Your task to perform on an android device: Go to eBay Image 0: 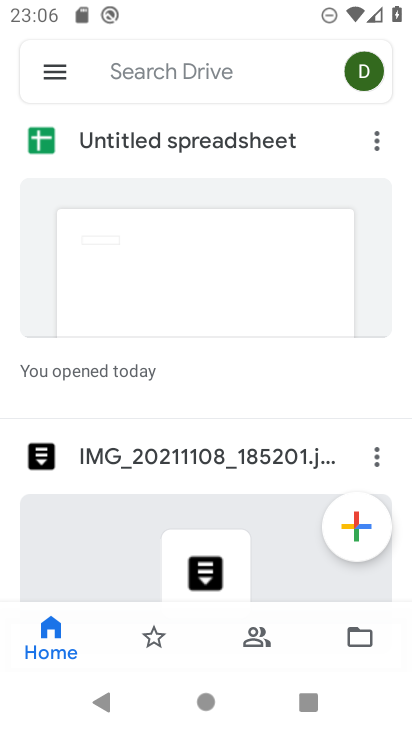
Step 0: press home button
Your task to perform on an android device: Go to eBay Image 1: 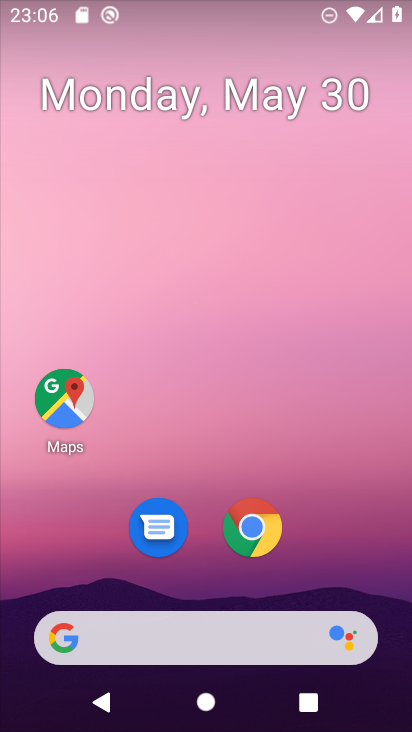
Step 1: click (264, 518)
Your task to perform on an android device: Go to eBay Image 2: 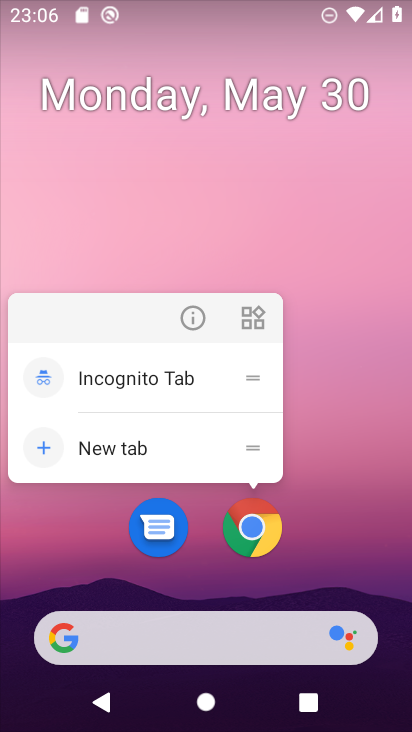
Step 2: click (258, 528)
Your task to perform on an android device: Go to eBay Image 3: 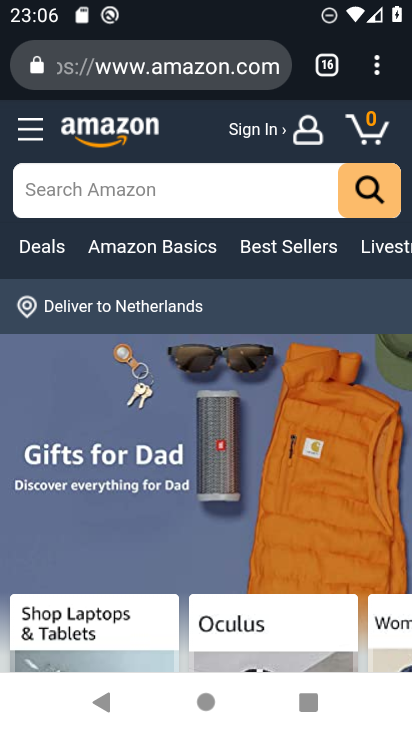
Step 3: click (372, 57)
Your task to perform on an android device: Go to eBay Image 4: 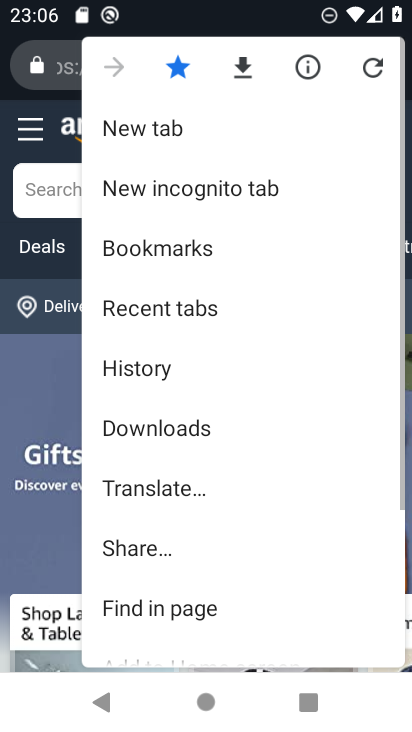
Step 4: click (201, 131)
Your task to perform on an android device: Go to eBay Image 5: 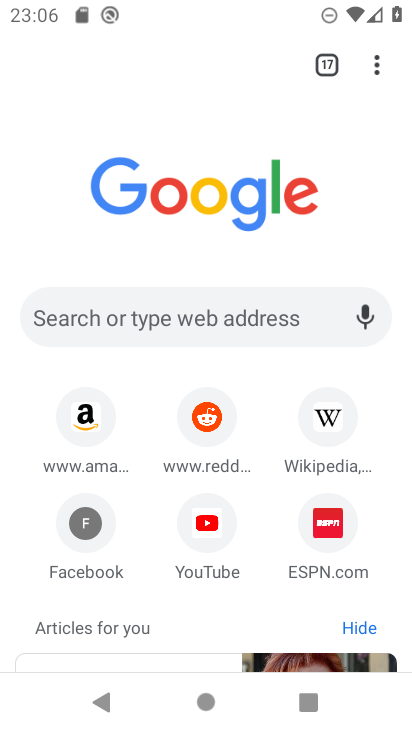
Step 5: click (108, 309)
Your task to perform on an android device: Go to eBay Image 6: 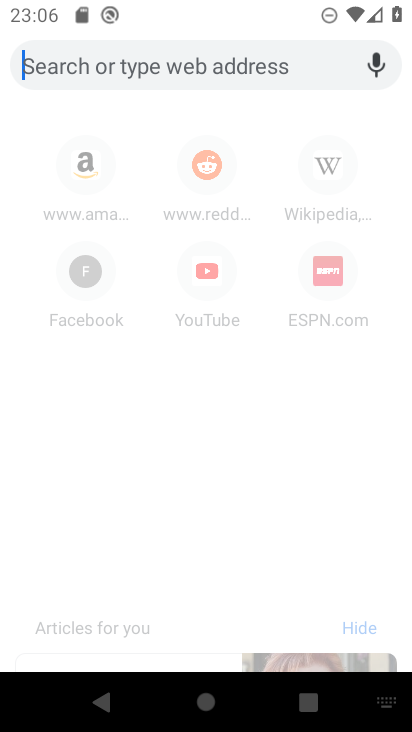
Step 6: type "eBay"
Your task to perform on an android device: Go to eBay Image 7: 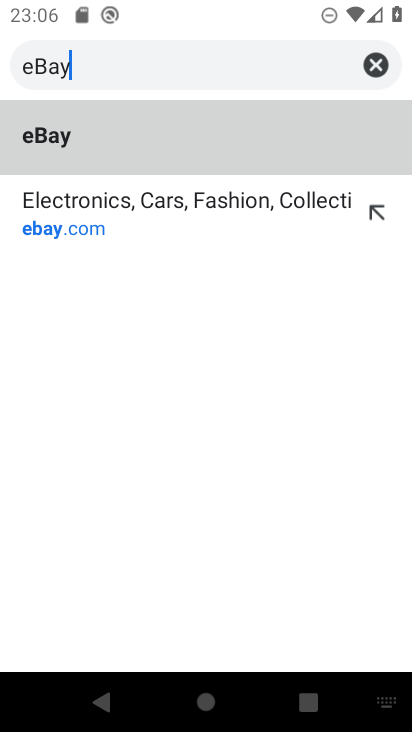
Step 7: click (183, 151)
Your task to perform on an android device: Go to eBay Image 8: 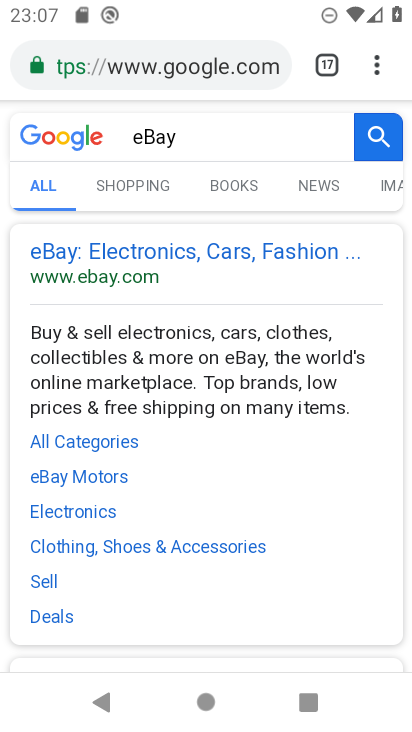
Step 8: task complete